Your task to perform on an android device: add a contact in the contacts app Image 0: 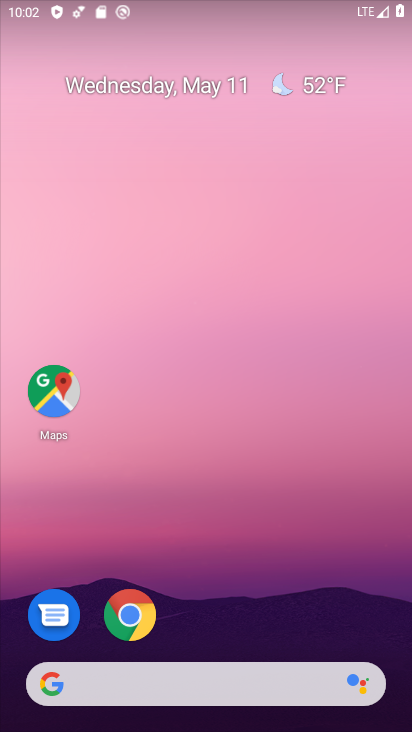
Step 0: drag from (242, 595) to (188, 68)
Your task to perform on an android device: add a contact in the contacts app Image 1: 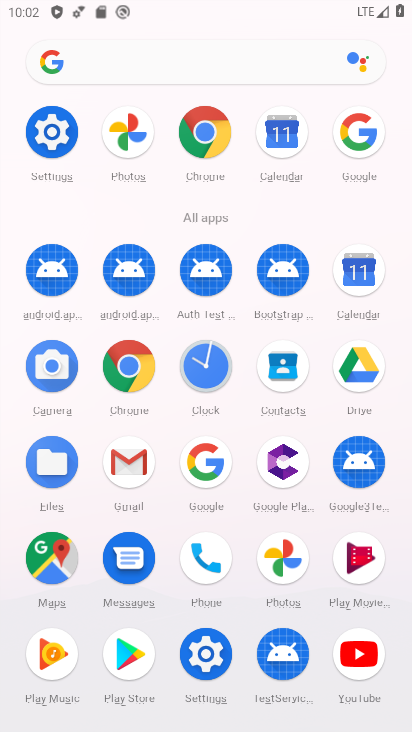
Step 1: click (280, 367)
Your task to perform on an android device: add a contact in the contacts app Image 2: 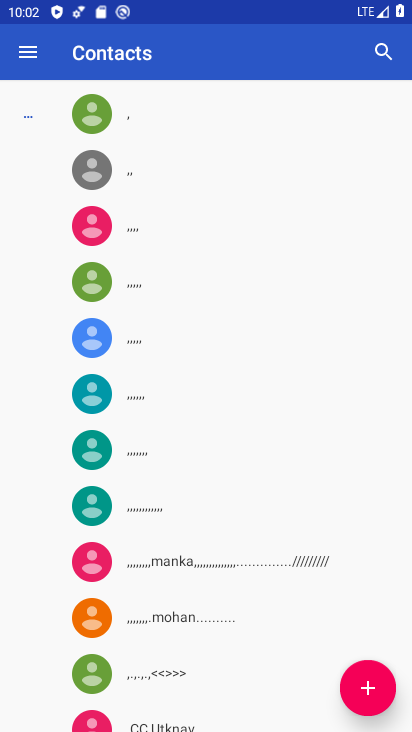
Step 2: click (372, 687)
Your task to perform on an android device: add a contact in the contacts app Image 3: 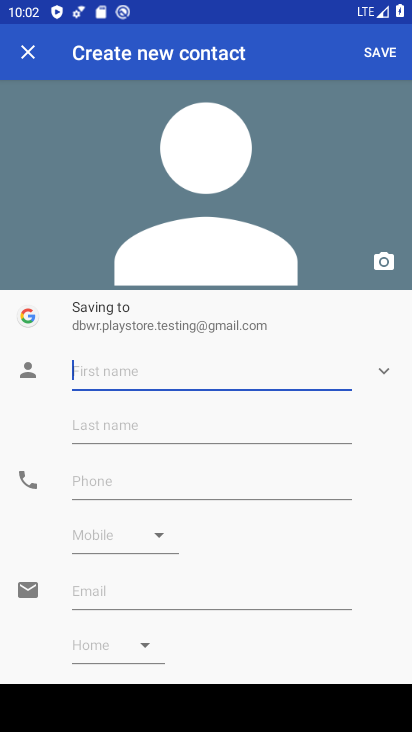
Step 3: click (184, 356)
Your task to perform on an android device: add a contact in the contacts app Image 4: 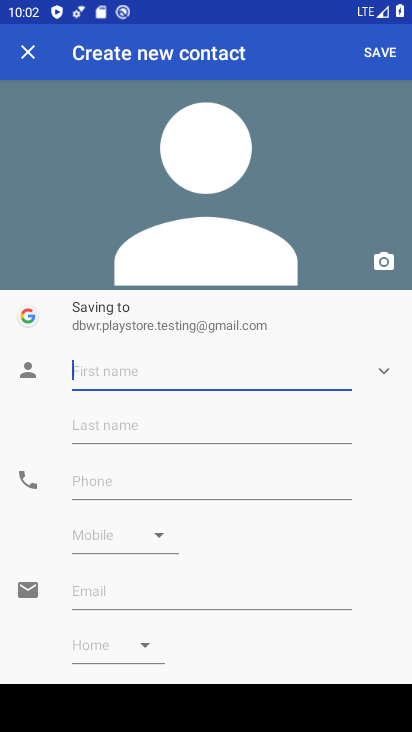
Step 4: type "Shivnarayan"
Your task to perform on an android device: add a contact in the contacts app Image 5: 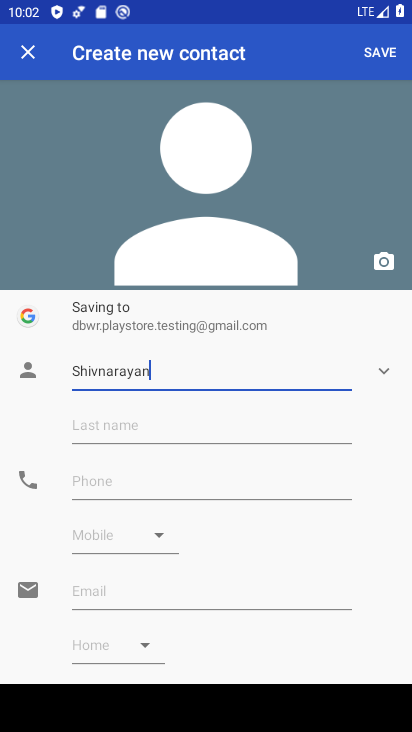
Step 5: click (194, 427)
Your task to perform on an android device: add a contact in the contacts app Image 6: 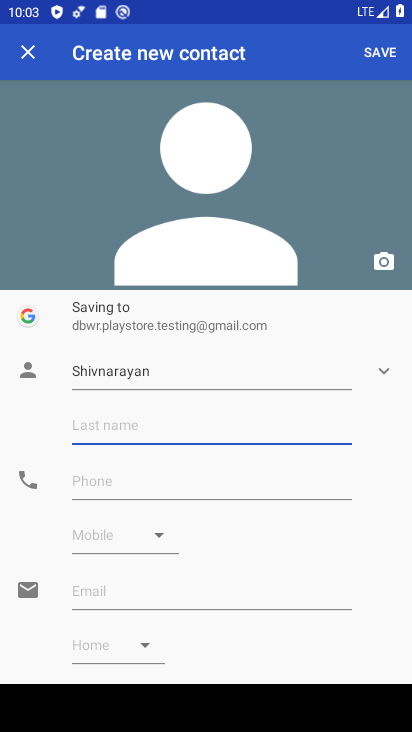
Step 6: type "Chandrapaul"
Your task to perform on an android device: add a contact in the contacts app Image 7: 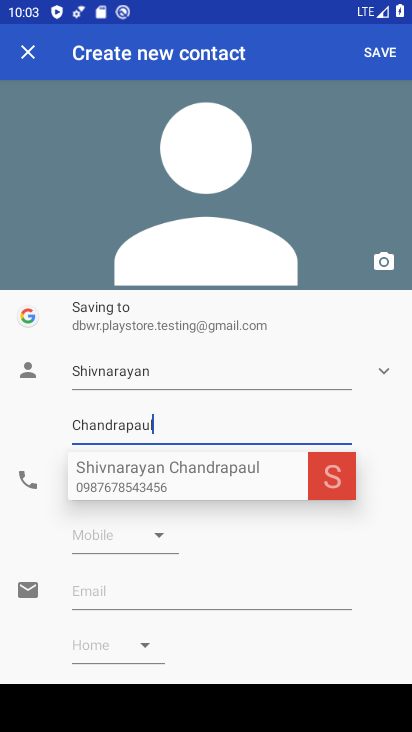
Step 7: click (158, 482)
Your task to perform on an android device: add a contact in the contacts app Image 8: 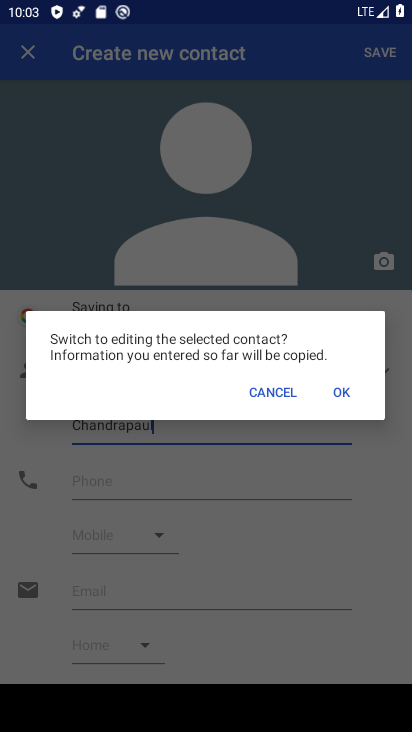
Step 8: click (338, 390)
Your task to perform on an android device: add a contact in the contacts app Image 9: 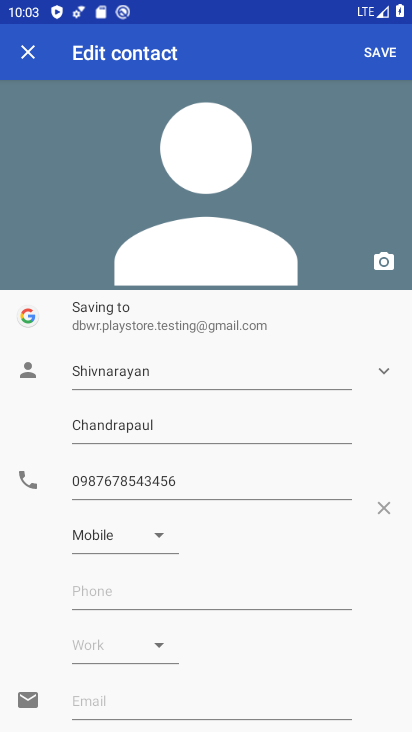
Step 9: click (391, 55)
Your task to perform on an android device: add a contact in the contacts app Image 10: 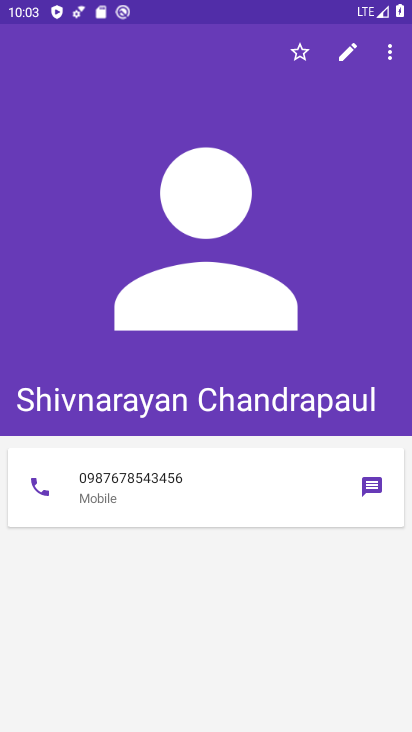
Step 10: task complete